Your task to perform on an android device: Open my contact list Image 0: 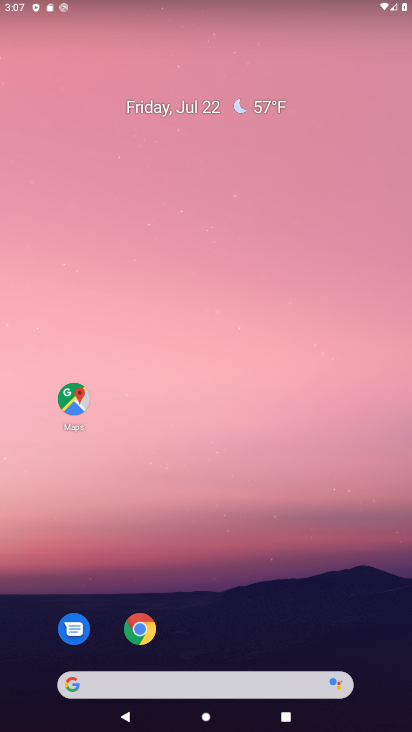
Step 0: drag from (270, 624) to (172, 182)
Your task to perform on an android device: Open my contact list Image 1: 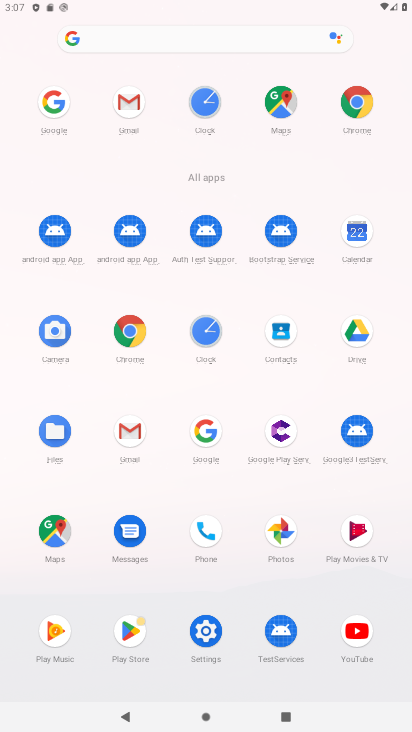
Step 1: click (279, 334)
Your task to perform on an android device: Open my contact list Image 2: 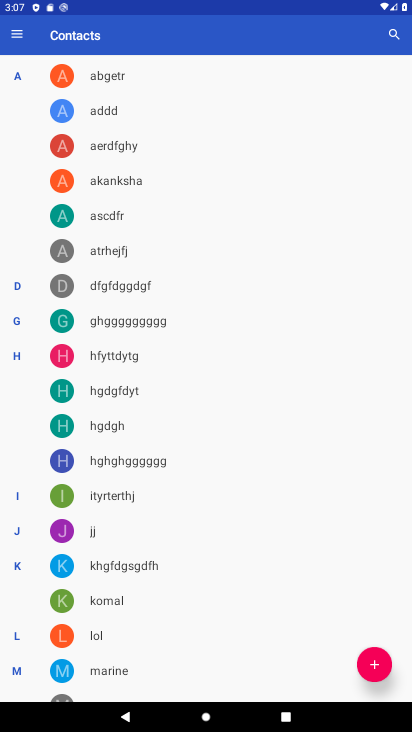
Step 2: task complete